Your task to perform on an android device: Open Google Image 0: 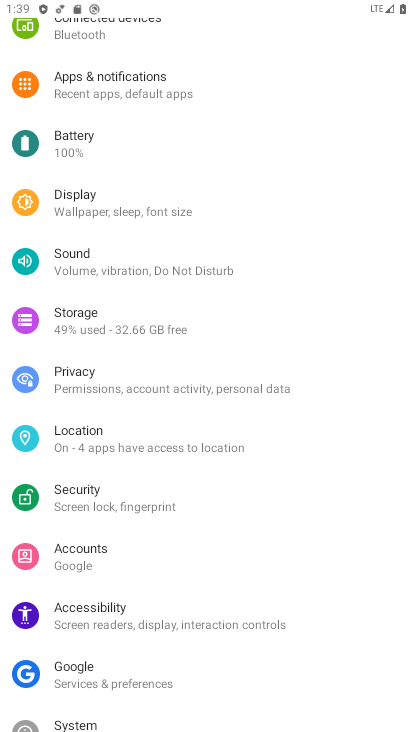
Step 0: press home button
Your task to perform on an android device: Open Google Image 1: 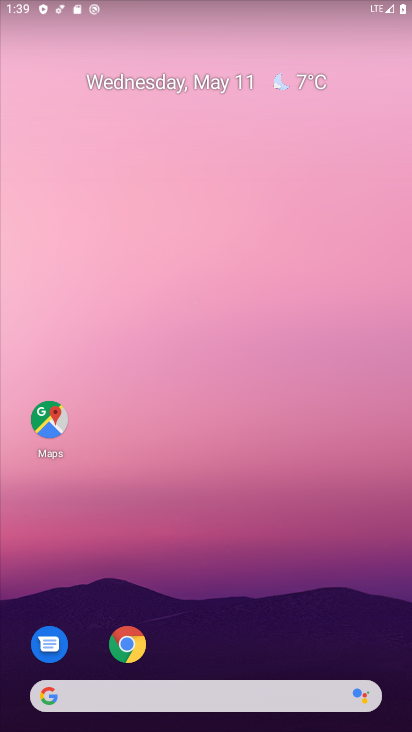
Step 1: click (133, 630)
Your task to perform on an android device: Open Google Image 2: 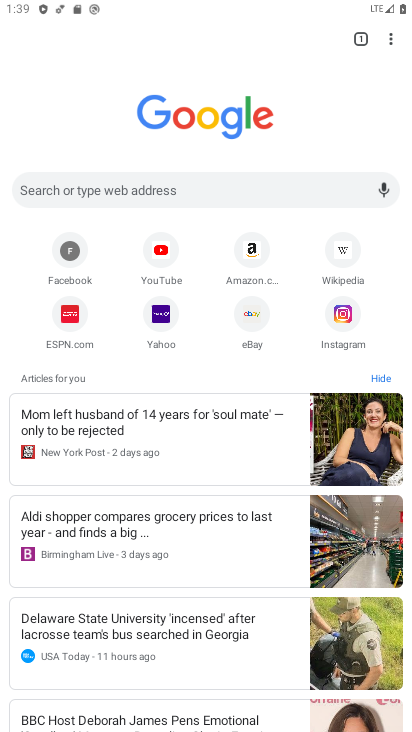
Step 2: click (177, 180)
Your task to perform on an android device: Open Google Image 3: 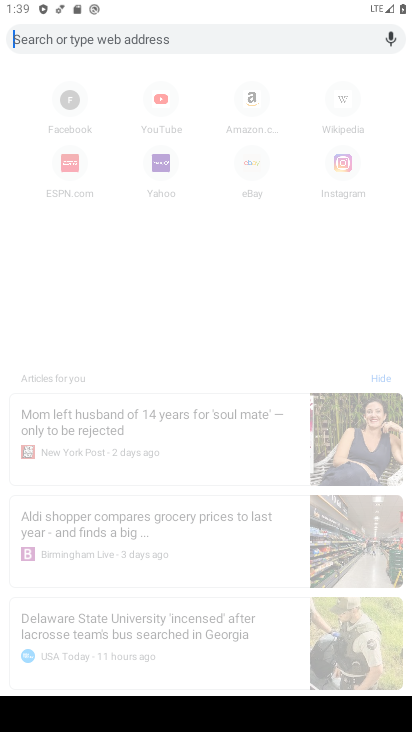
Step 3: type "google.com"
Your task to perform on an android device: Open Google Image 4: 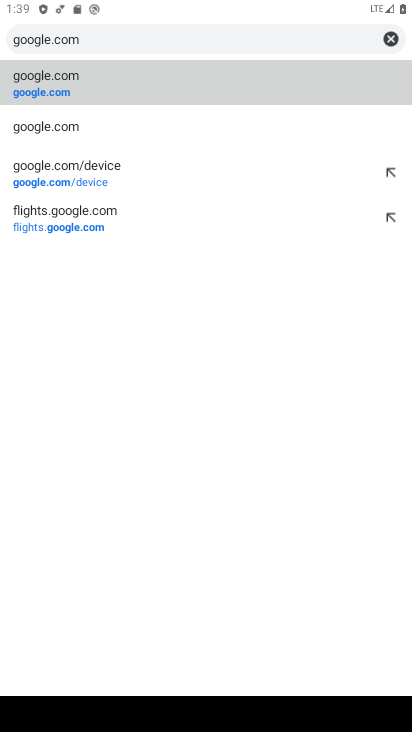
Step 4: click (11, 75)
Your task to perform on an android device: Open Google Image 5: 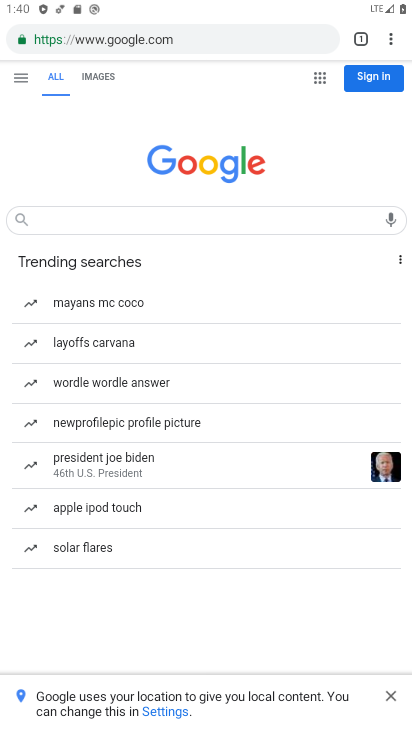
Step 5: task complete